Your task to perform on an android device: find photos in the google photos app Image 0: 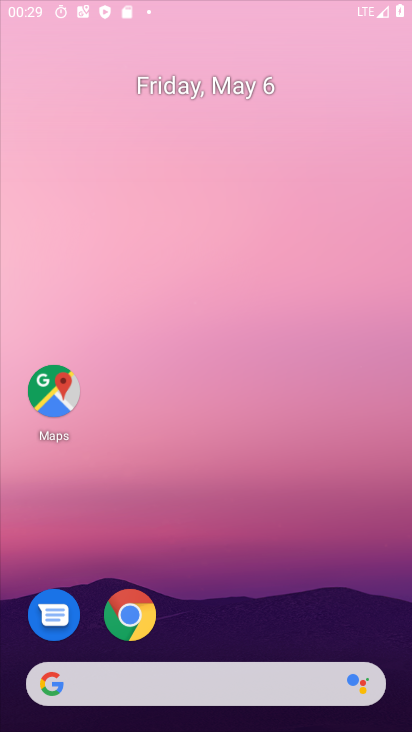
Step 0: click (308, 89)
Your task to perform on an android device: find photos in the google photos app Image 1: 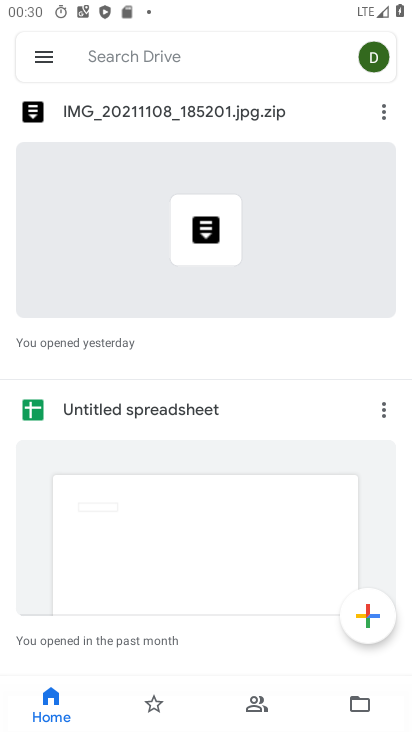
Step 1: press home button
Your task to perform on an android device: find photos in the google photos app Image 2: 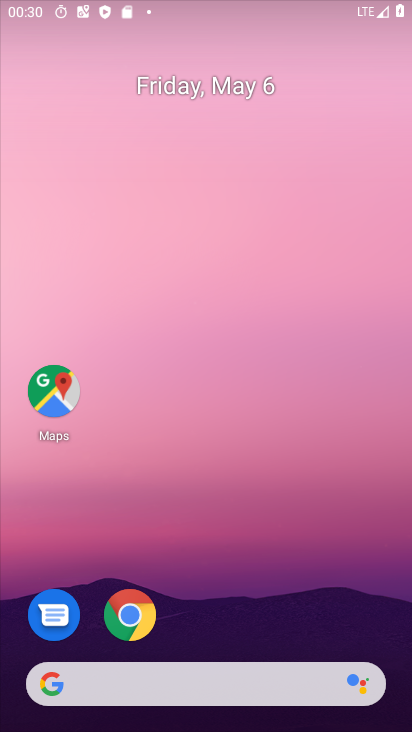
Step 2: drag from (234, 595) to (303, 51)
Your task to perform on an android device: find photos in the google photos app Image 3: 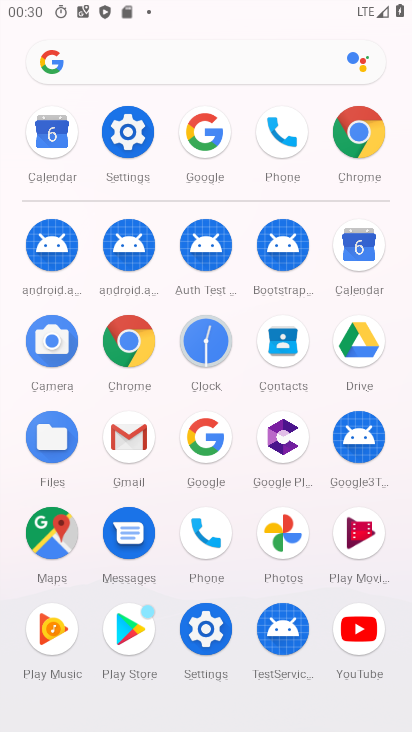
Step 3: click (281, 536)
Your task to perform on an android device: find photos in the google photos app Image 4: 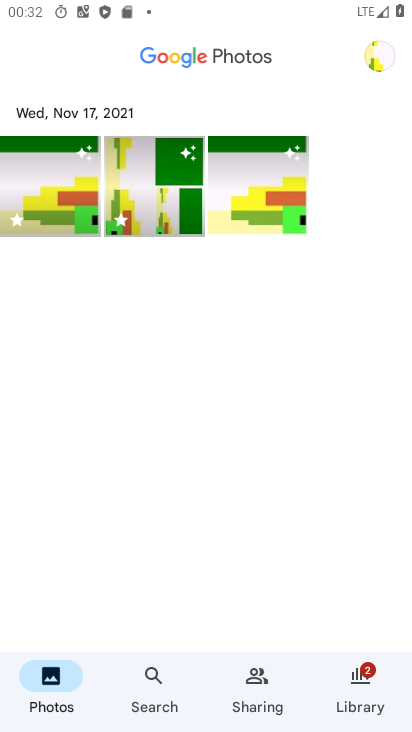
Step 4: task complete